Your task to perform on an android device: Open internet settings Image 0: 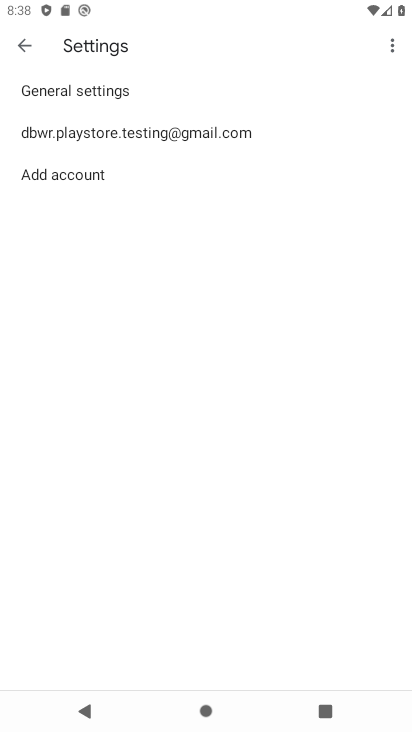
Step 0: press home button
Your task to perform on an android device: Open internet settings Image 1: 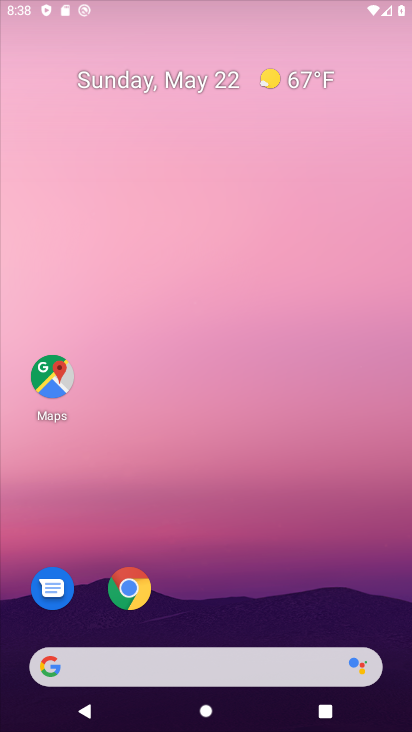
Step 1: drag from (197, 563) to (222, 166)
Your task to perform on an android device: Open internet settings Image 2: 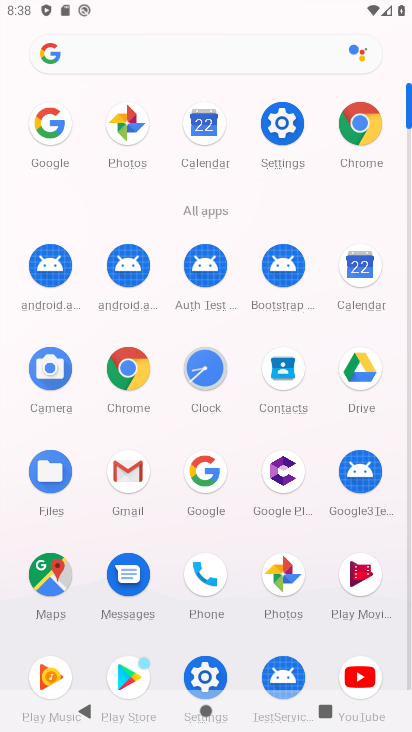
Step 2: click (272, 129)
Your task to perform on an android device: Open internet settings Image 3: 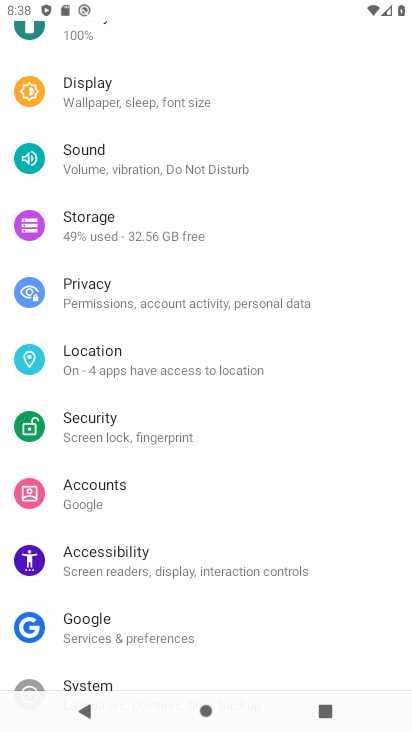
Step 3: drag from (174, 571) to (182, 278)
Your task to perform on an android device: Open internet settings Image 4: 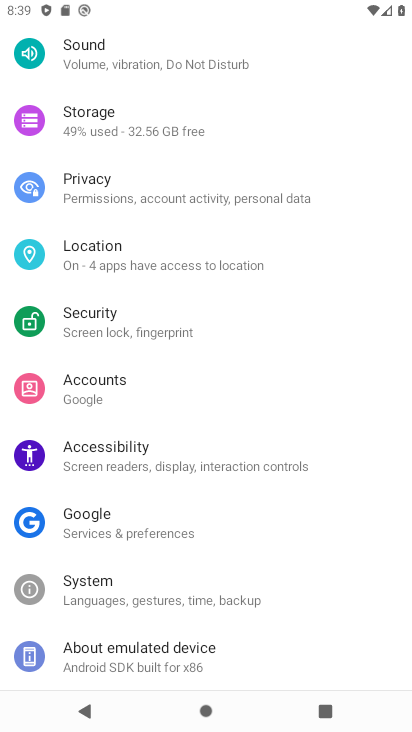
Step 4: drag from (168, 166) to (189, 545)
Your task to perform on an android device: Open internet settings Image 5: 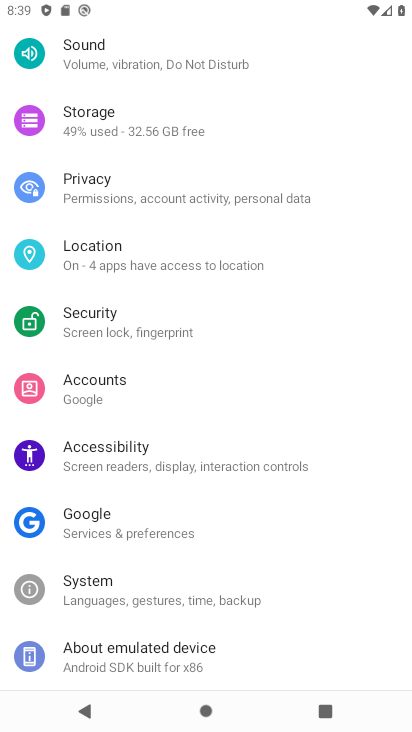
Step 5: drag from (164, 161) to (196, 502)
Your task to perform on an android device: Open internet settings Image 6: 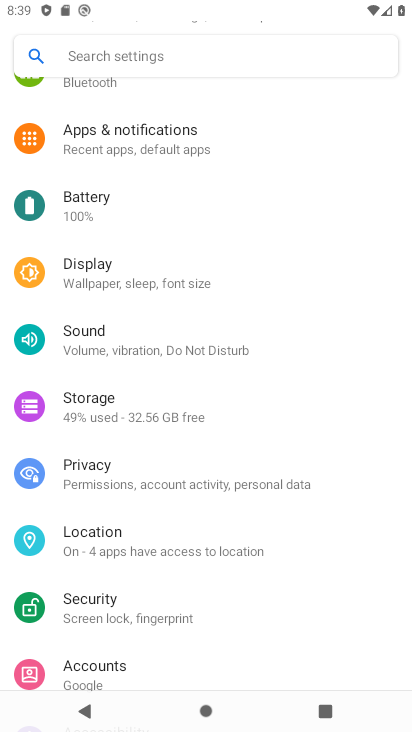
Step 6: drag from (137, 109) to (166, 517)
Your task to perform on an android device: Open internet settings Image 7: 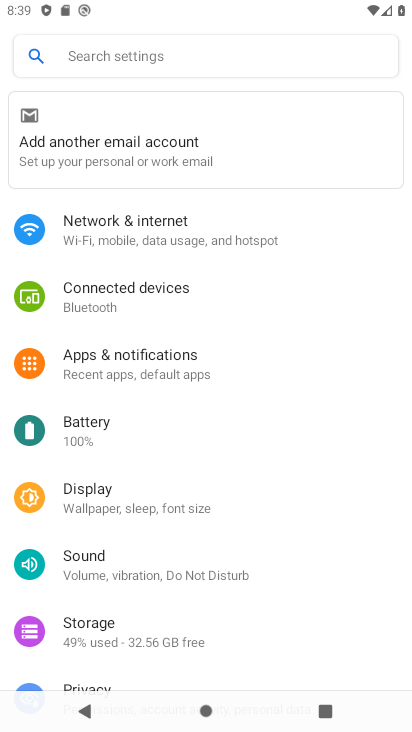
Step 7: click (147, 237)
Your task to perform on an android device: Open internet settings Image 8: 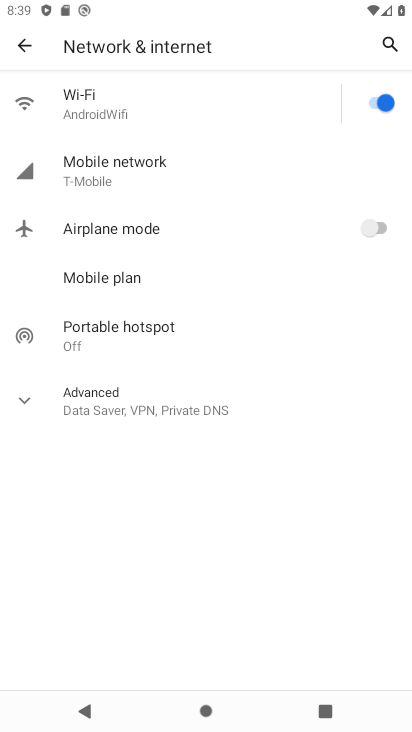
Step 8: click (129, 166)
Your task to perform on an android device: Open internet settings Image 9: 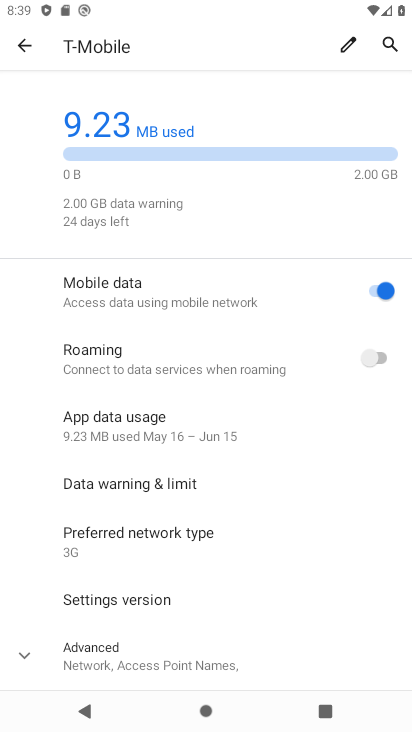
Step 9: task complete